Your task to perform on an android device: toggle javascript in the chrome app Image 0: 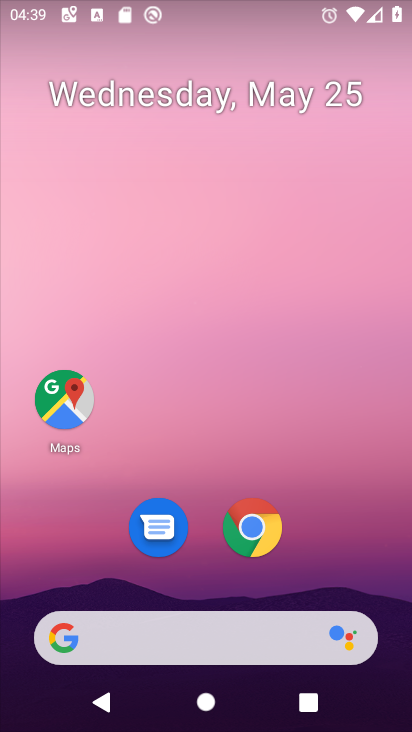
Step 0: drag from (210, 498) to (233, 32)
Your task to perform on an android device: toggle javascript in the chrome app Image 1: 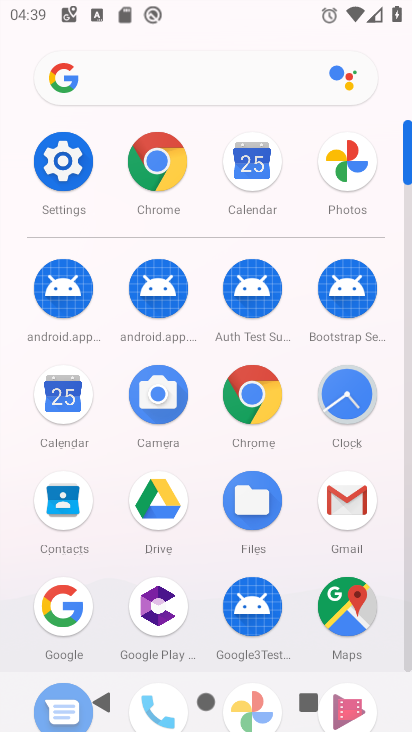
Step 1: click (160, 172)
Your task to perform on an android device: toggle javascript in the chrome app Image 2: 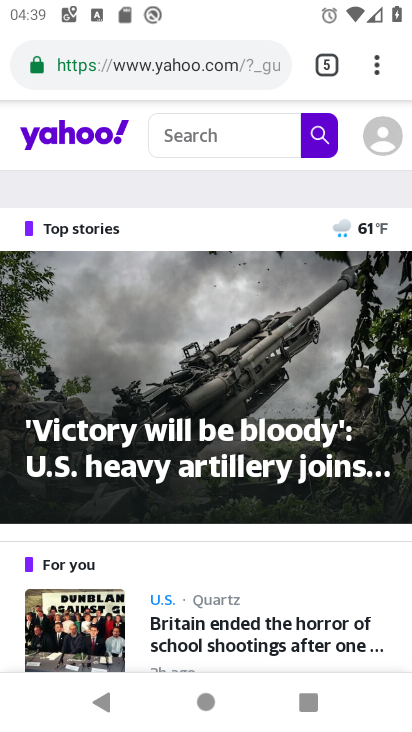
Step 2: click (377, 61)
Your task to perform on an android device: toggle javascript in the chrome app Image 3: 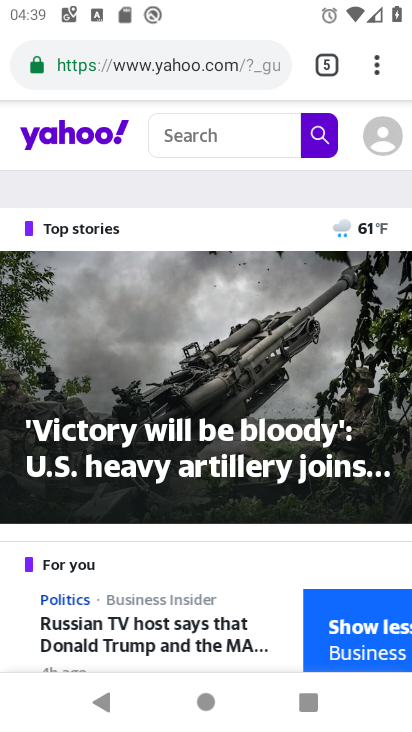
Step 3: click (376, 75)
Your task to perform on an android device: toggle javascript in the chrome app Image 4: 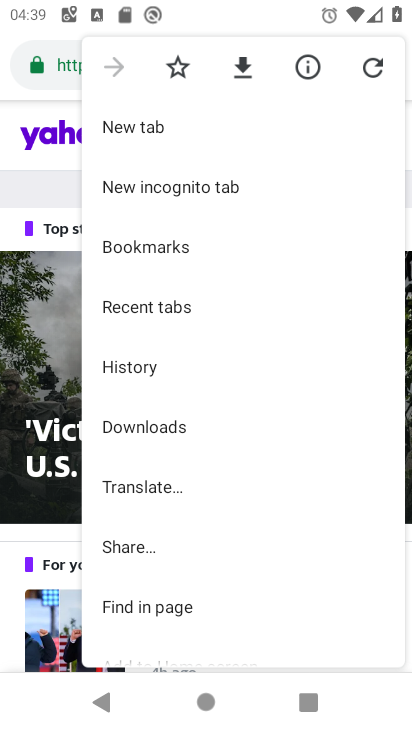
Step 4: drag from (283, 480) to (306, 197)
Your task to perform on an android device: toggle javascript in the chrome app Image 5: 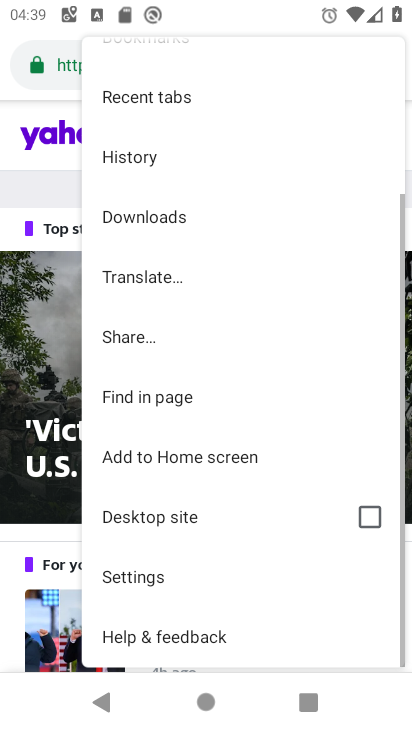
Step 5: click (160, 576)
Your task to perform on an android device: toggle javascript in the chrome app Image 6: 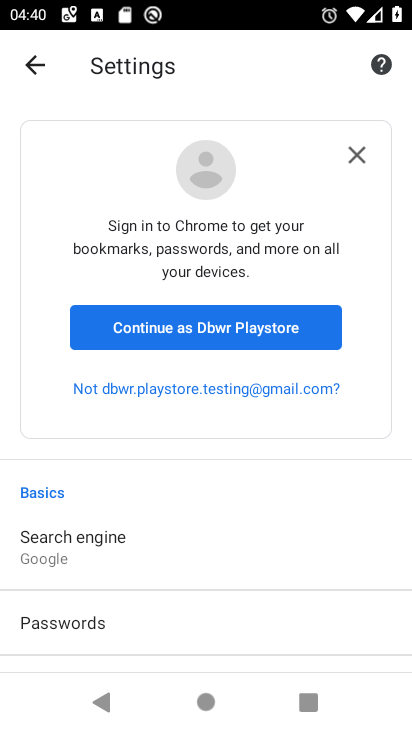
Step 6: drag from (222, 587) to (272, 235)
Your task to perform on an android device: toggle javascript in the chrome app Image 7: 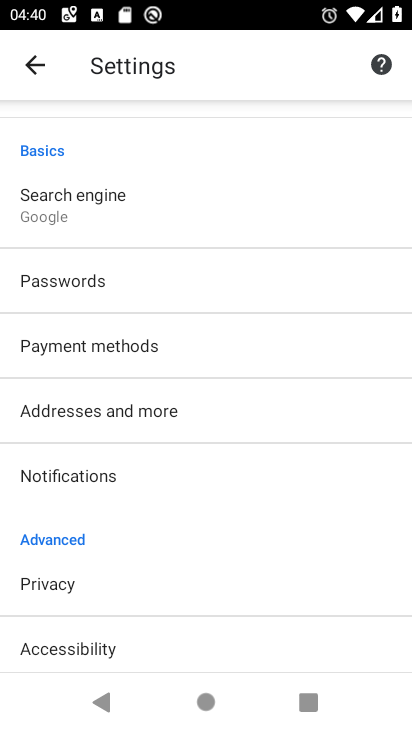
Step 7: drag from (205, 573) to (249, 207)
Your task to perform on an android device: toggle javascript in the chrome app Image 8: 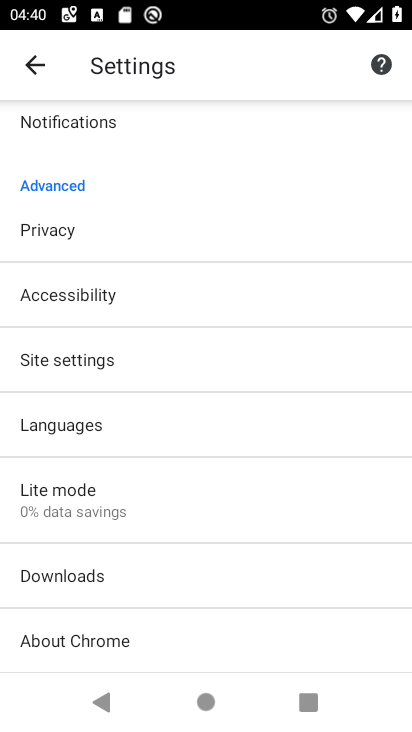
Step 8: click (107, 366)
Your task to perform on an android device: toggle javascript in the chrome app Image 9: 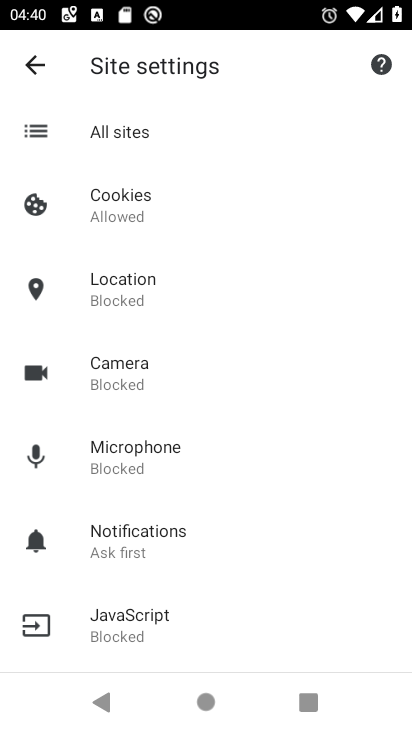
Step 9: click (139, 620)
Your task to perform on an android device: toggle javascript in the chrome app Image 10: 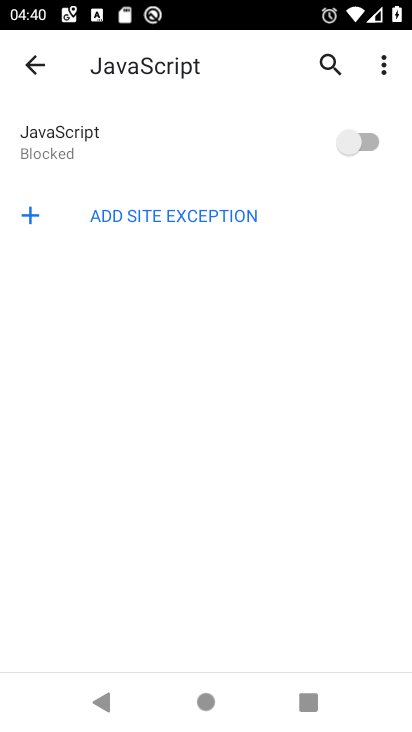
Step 10: click (355, 148)
Your task to perform on an android device: toggle javascript in the chrome app Image 11: 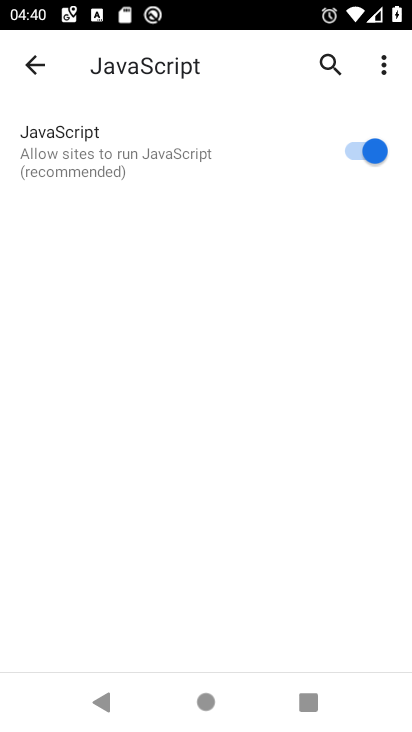
Step 11: task complete